Your task to perform on an android device: What's the weather going to be this weekend? Image 0: 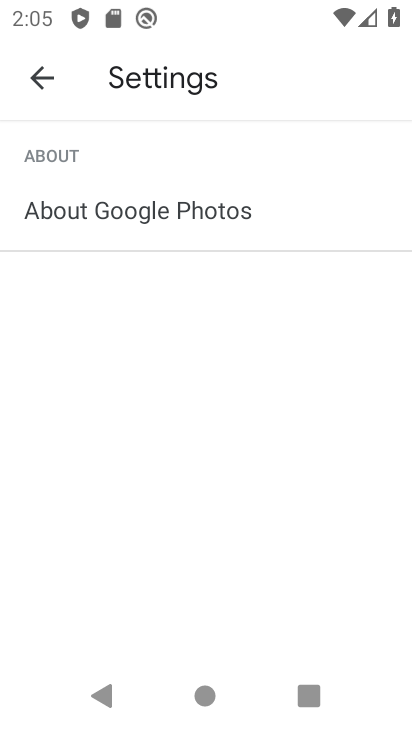
Step 0: press home button
Your task to perform on an android device: What's the weather going to be this weekend? Image 1: 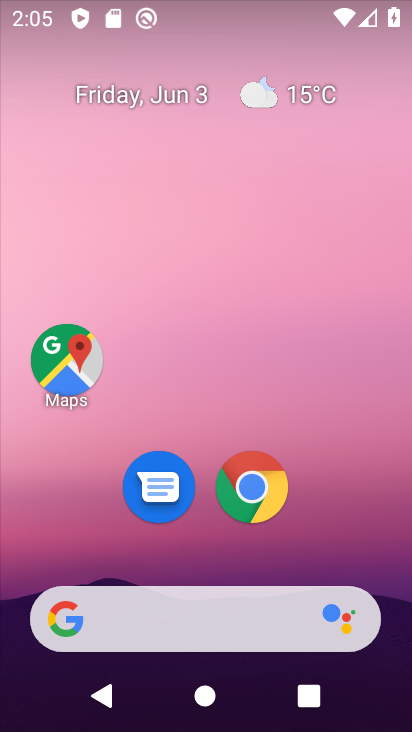
Step 1: click (305, 88)
Your task to perform on an android device: What's the weather going to be this weekend? Image 2: 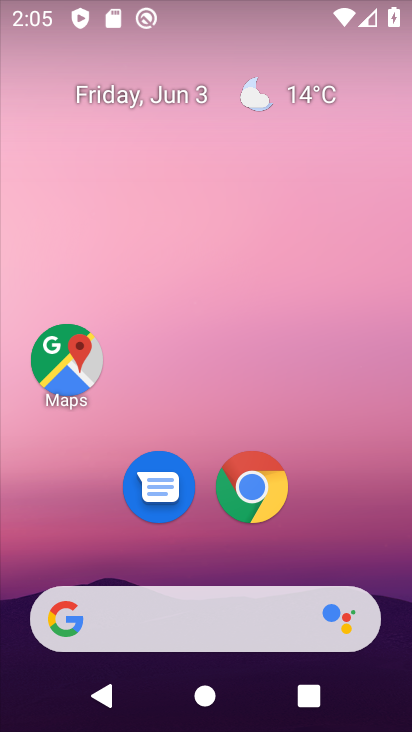
Step 2: click (296, 96)
Your task to perform on an android device: What's the weather going to be this weekend? Image 3: 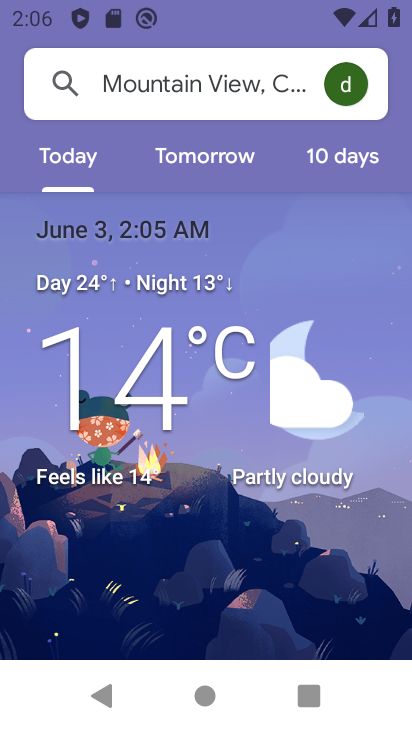
Step 3: task complete